Your task to perform on an android device: turn on sleep mode Image 0: 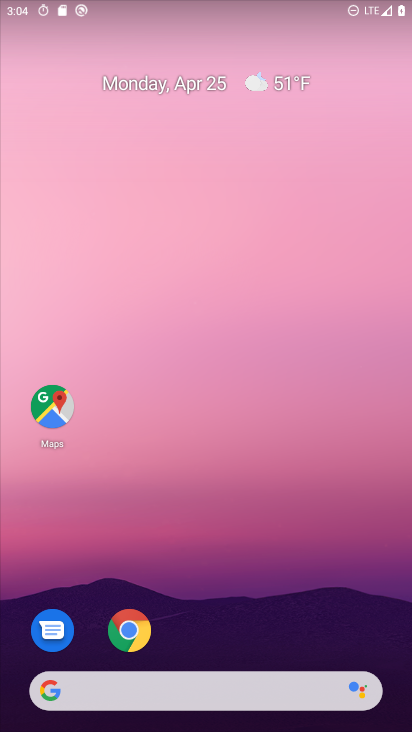
Step 0: drag from (204, 531) to (181, 66)
Your task to perform on an android device: turn on sleep mode Image 1: 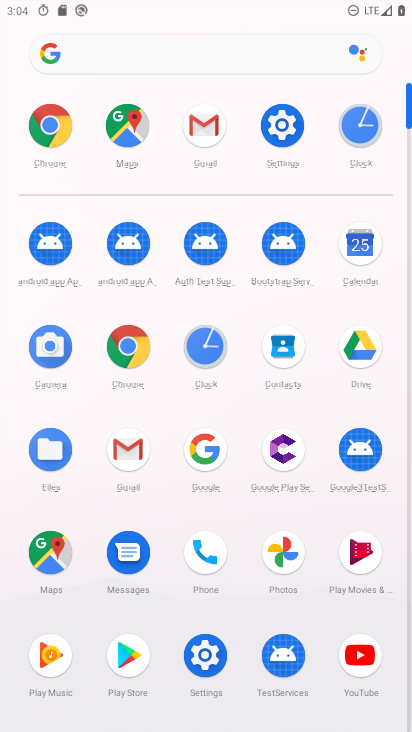
Step 1: click (197, 645)
Your task to perform on an android device: turn on sleep mode Image 2: 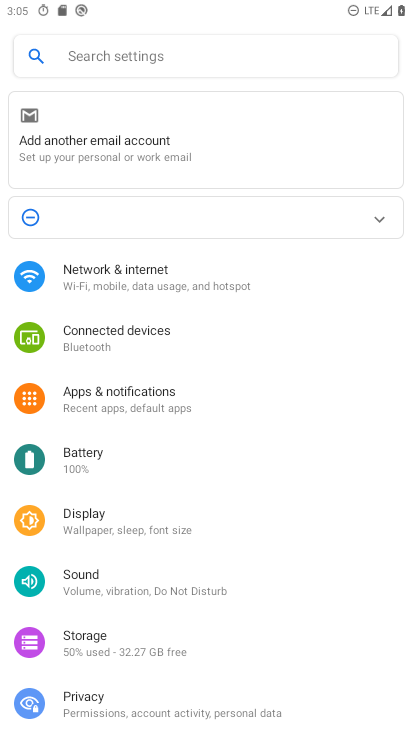
Step 2: drag from (218, 567) to (209, 155)
Your task to perform on an android device: turn on sleep mode Image 3: 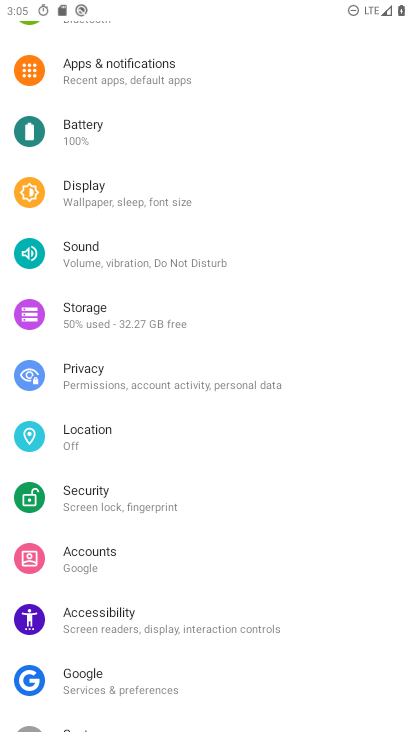
Step 3: drag from (154, 681) to (209, 376)
Your task to perform on an android device: turn on sleep mode Image 4: 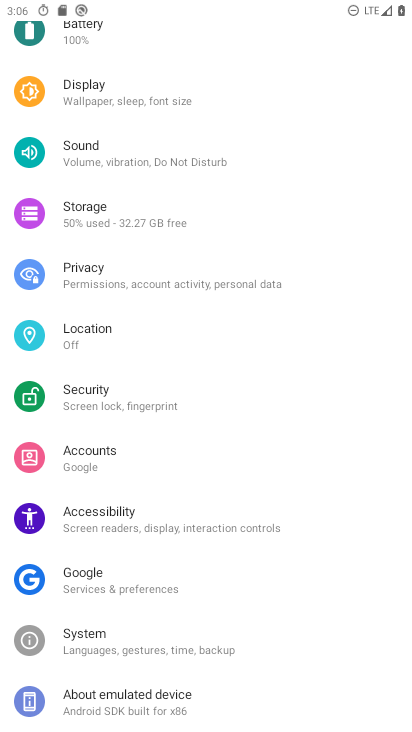
Step 4: drag from (187, 671) to (252, 405)
Your task to perform on an android device: turn on sleep mode Image 5: 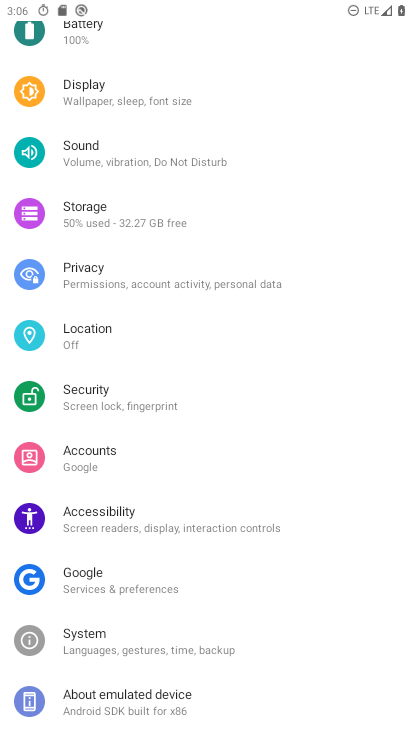
Step 5: drag from (180, 543) to (246, 295)
Your task to perform on an android device: turn on sleep mode Image 6: 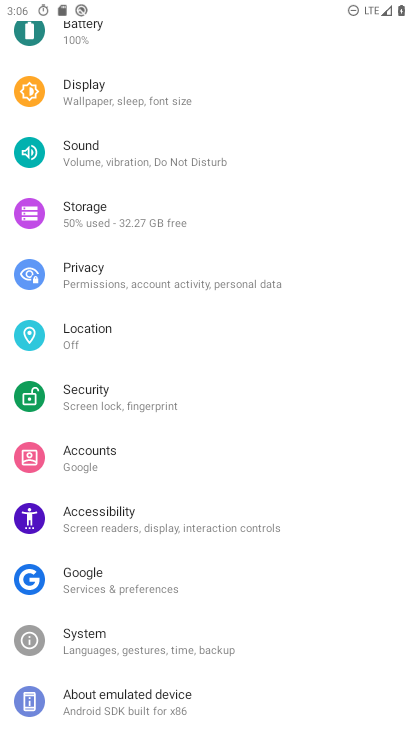
Step 6: drag from (201, 195) to (243, 546)
Your task to perform on an android device: turn on sleep mode Image 7: 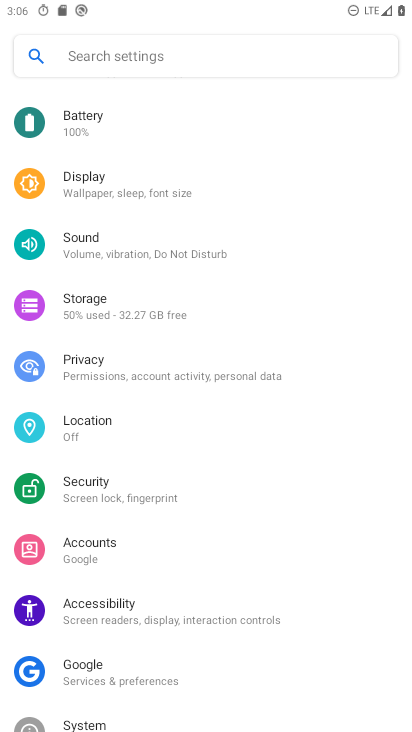
Step 7: drag from (207, 321) to (285, 587)
Your task to perform on an android device: turn on sleep mode Image 8: 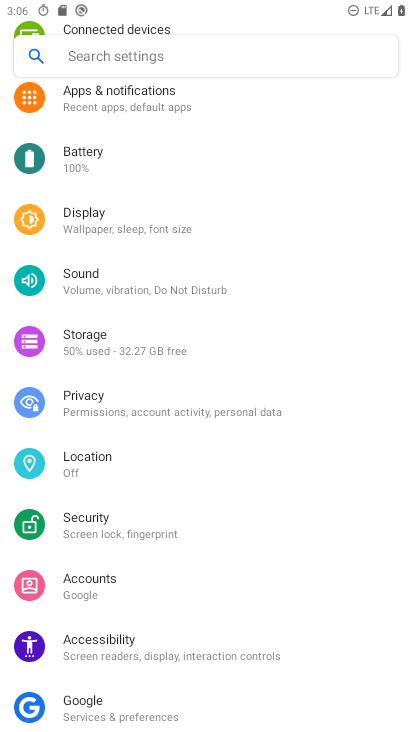
Step 8: click (189, 231)
Your task to perform on an android device: turn on sleep mode Image 9: 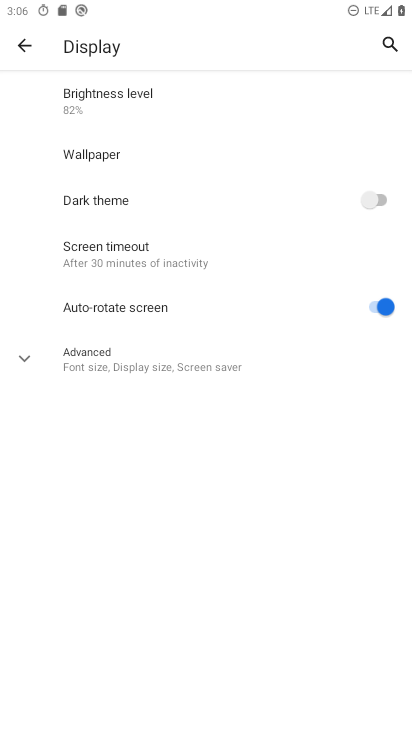
Step 9: click (221, 259)
Your task to perform on an android device: turn on sleep mode Image 10: 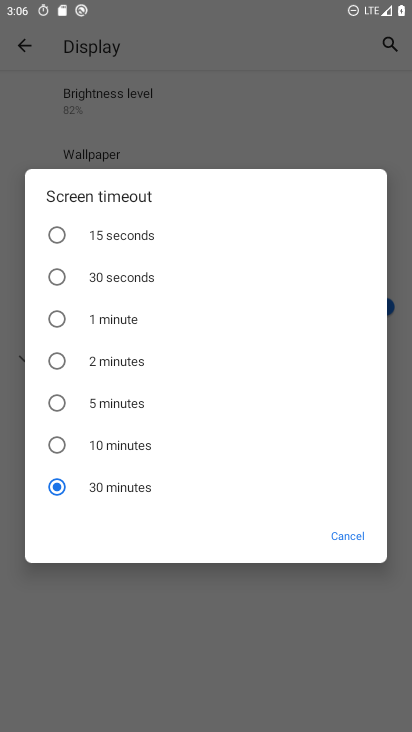
Step 10: click (139, 332)
Your task to perform on an android device: turn on sleep mode Image 11: 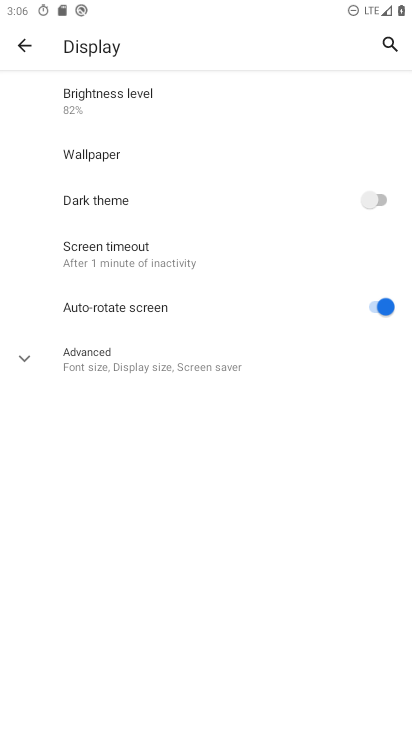
Step 11: task complete